Your task to perform on an android device: open app "Google Pay: Save, Pay, Manage" Image 0: 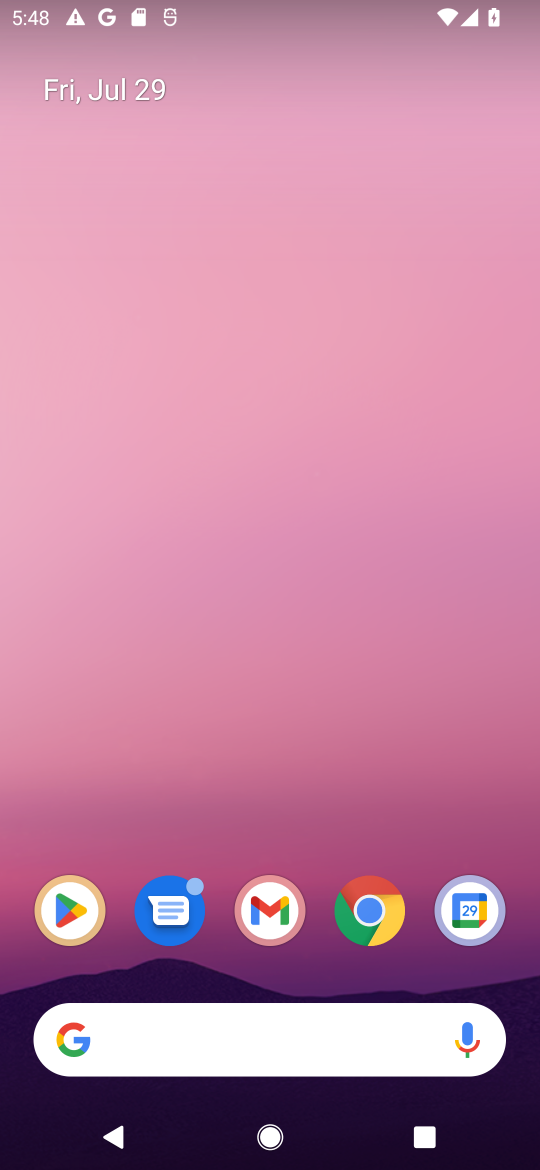
Step 0: drag from (225, 1022) to (243, 168)
Your task to perform on an android device: open app "Google Pay: Save, Pay, Manage" Image 1: 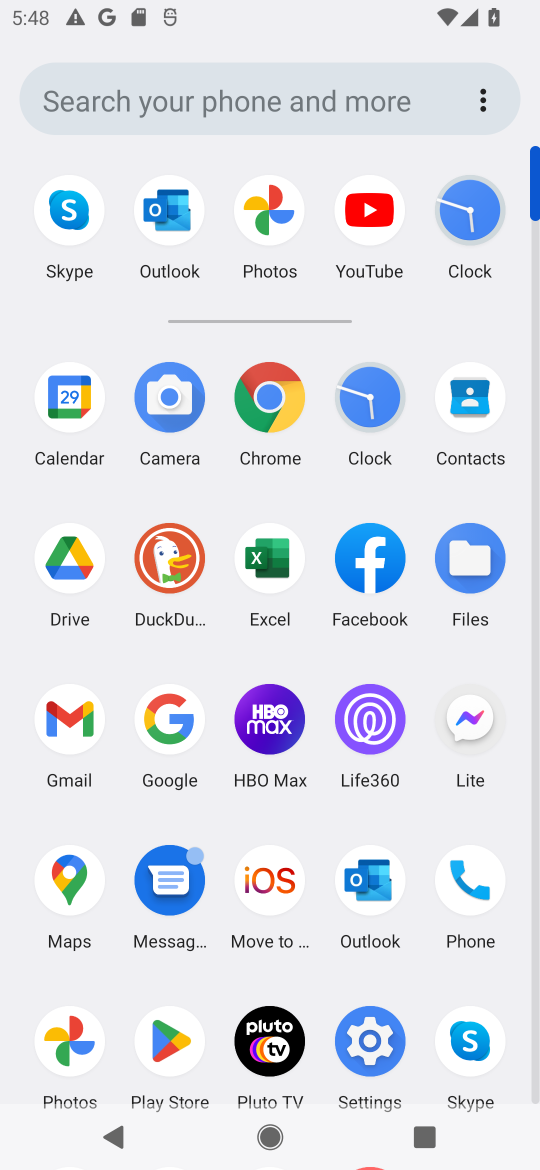
Step 1: click (151, 1044)
Your task to perform on an android device: open app "Google Pay: Save, Pay, Manage" Image 2: 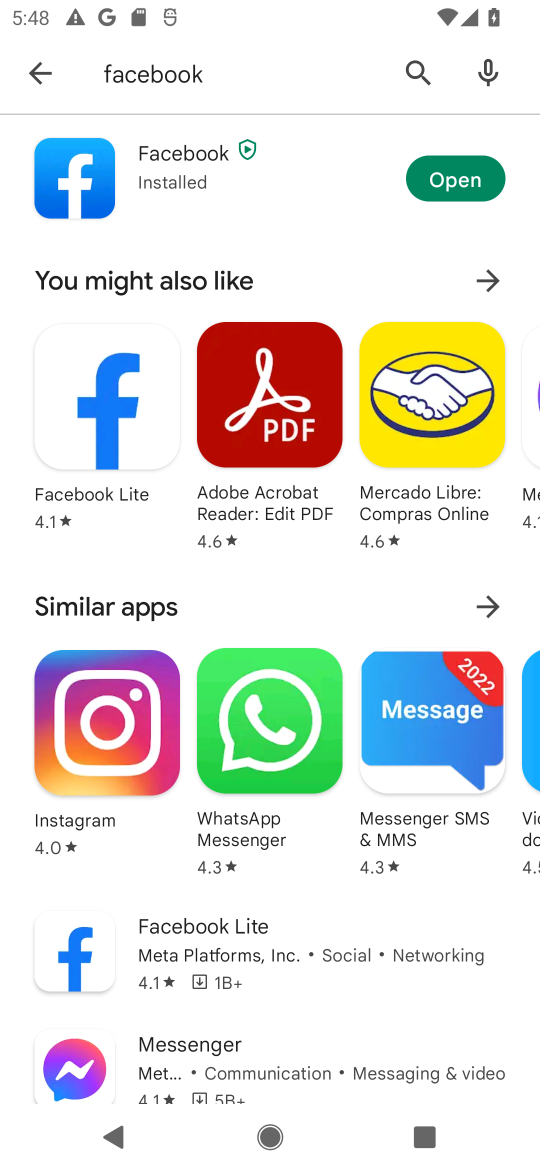
Step 2: click (474, 69)
Your task to perform on an android device: open app "Google Pay: Save, Pay, Manage" Image 3: 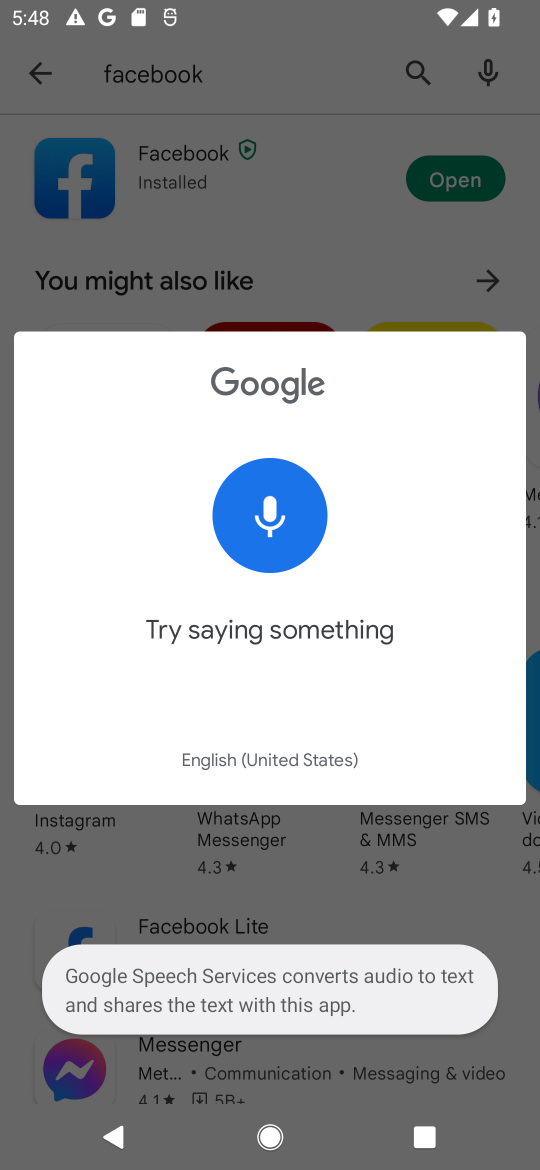
Step 3: click (410, 75)
Your task to perform on an android device: open app "Google Pay: Save, Pay, Manage" Image 4: 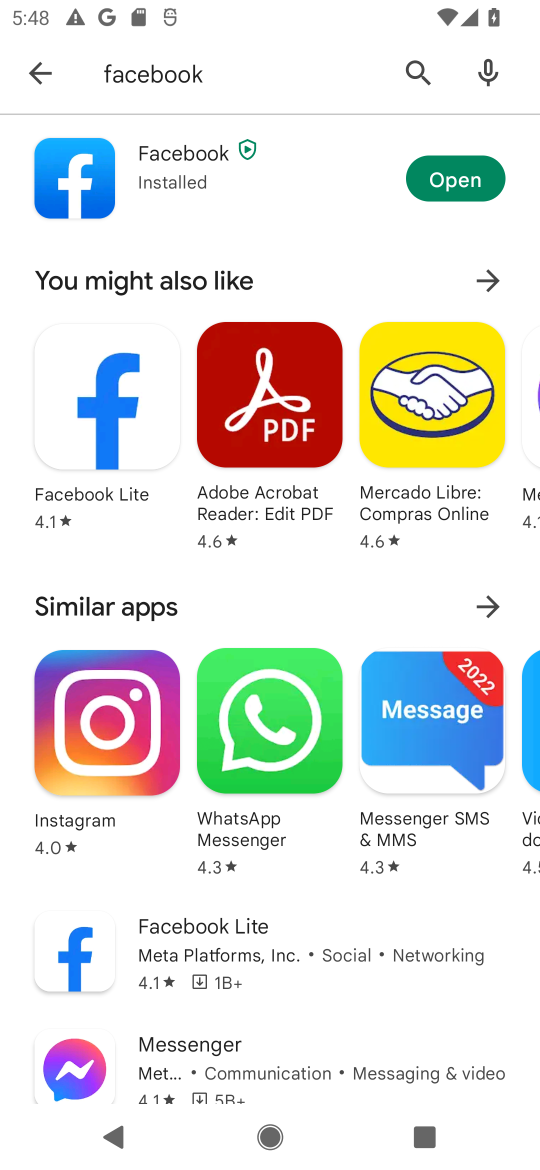
Step 4: click (416, 67)
Your task to perform on an android device: open app "Google Pay: Save, Pay, Manage" Image 5: 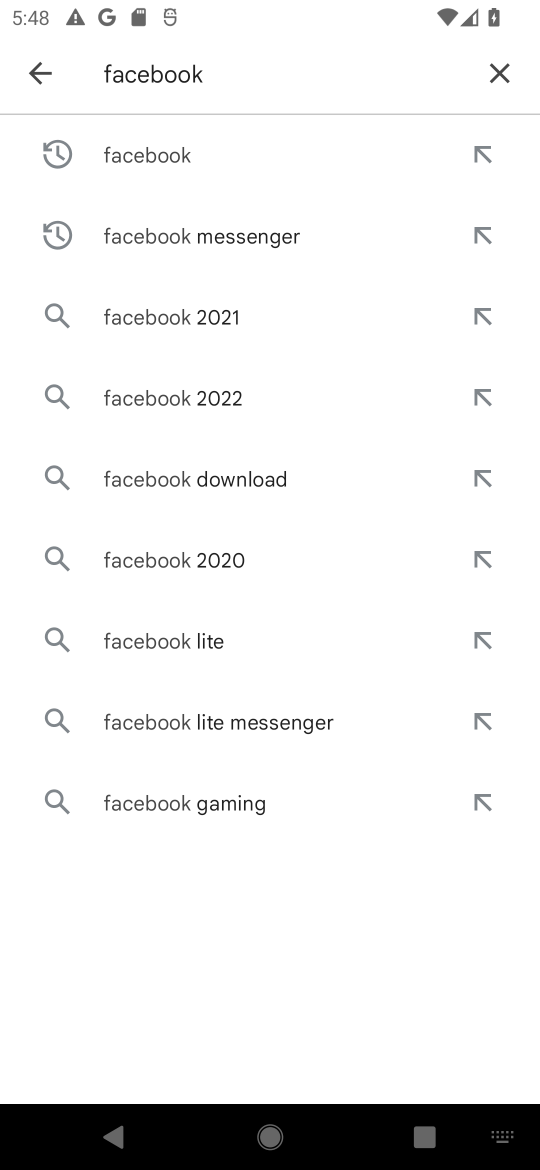
Step 5: click (499, 79)
Your task to perform on an android device: open app "Google Pay: Save, Pay, Manage" Image 6: 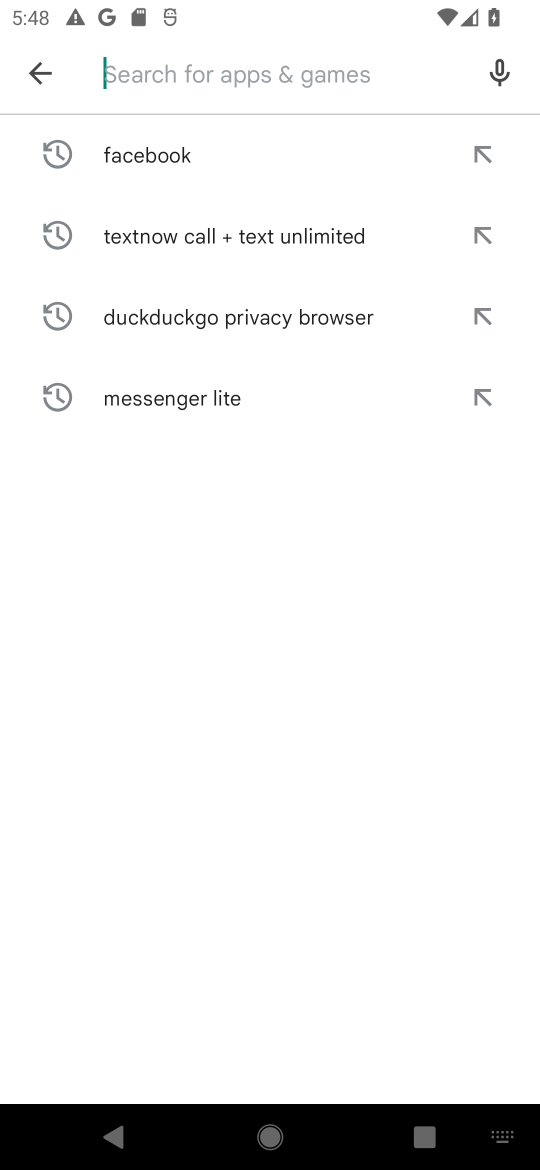
Step 6: type "Google Pay: Save, Pay, Manage"
Your task to perform on an android device: open app "Google Pay: Save, Pay, Manage" Image 7: 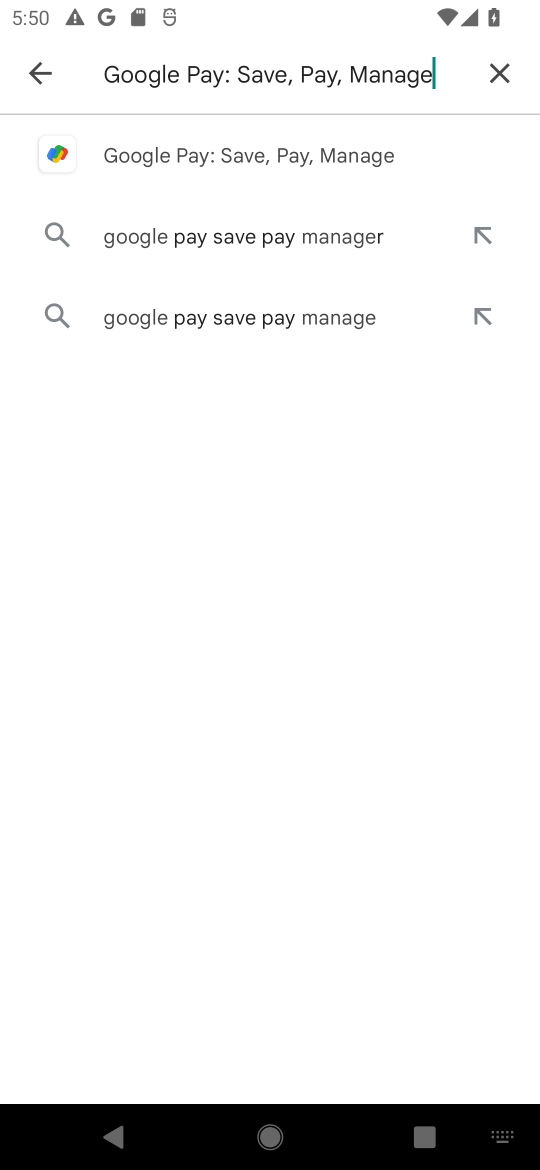
Step 7: click (249, 164)
Your task to perform on an android device: open app "Google Pay: Save, Pay, Manage" Image 8: 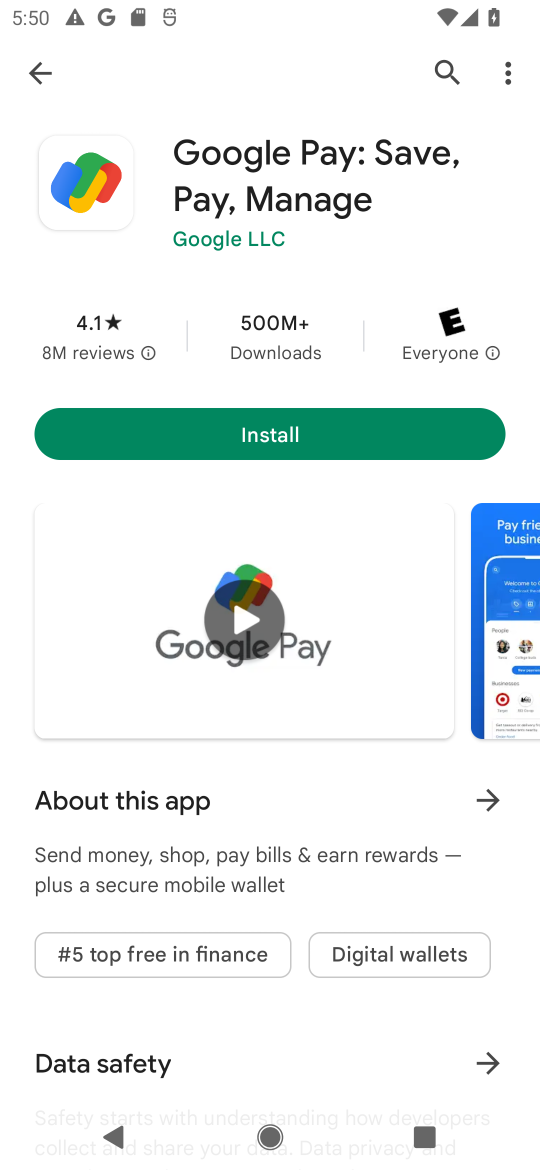
Step 8: click (297, 430)
Your task to perform on an android device: open app "Google Pay: Save, Pay, Manage" Image 9: 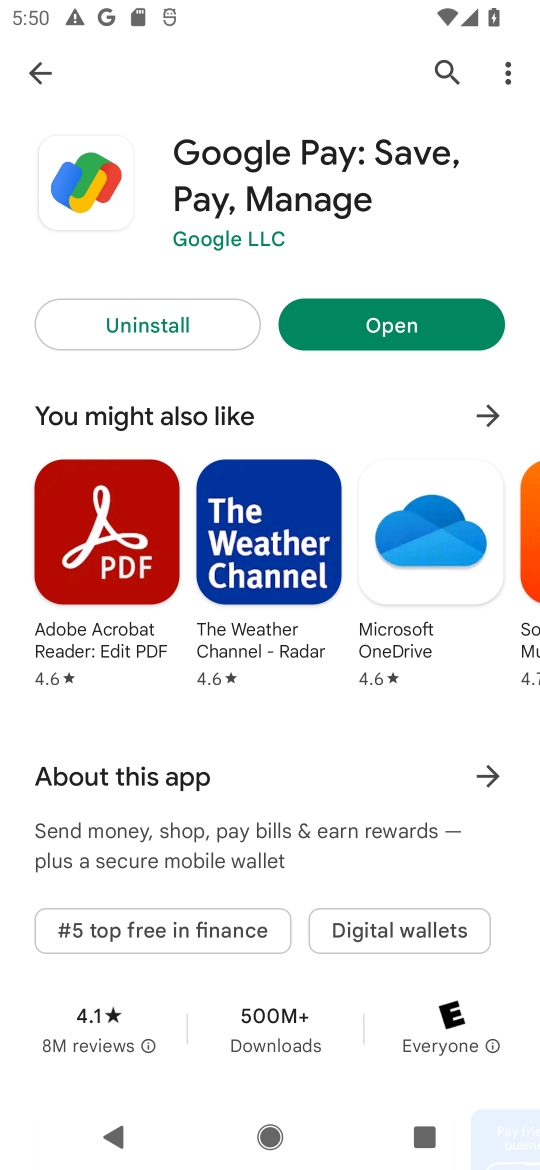
Step 9: click (411, 315)
Your task to perform on an android device: open app "Google Pay: Save, Pay, Manage" Image 10: 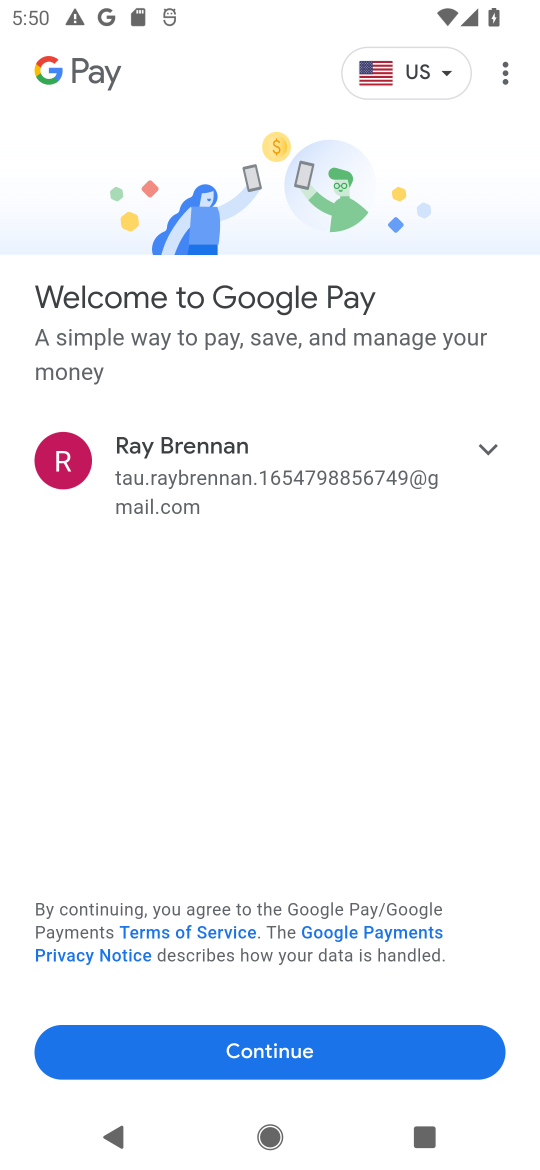
Step 10: task complete